Your task to perform on an android device: open a bookmark in the chrome app Image 0: 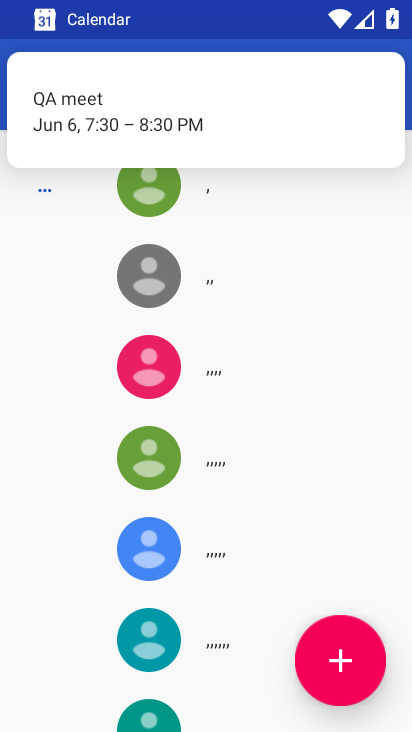
Step 0: press home button
Your task to perform on an android device: open a bookmark in the chrome app Image 1: 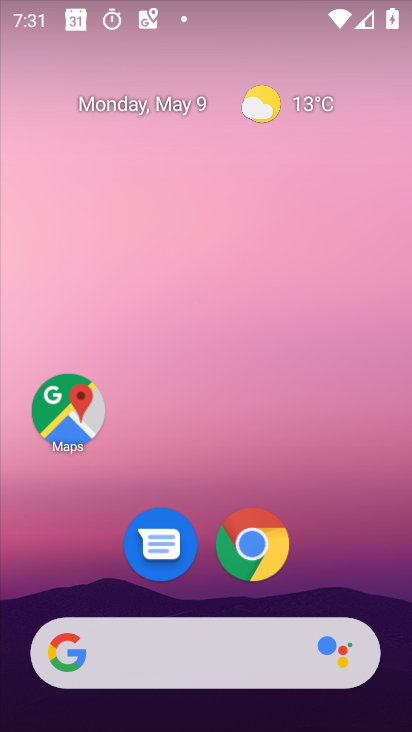
Step 1: drag from (359, 587) to (338, 89)
Your task to perform on an android device: open a bookmark in the chrome app Image 2: 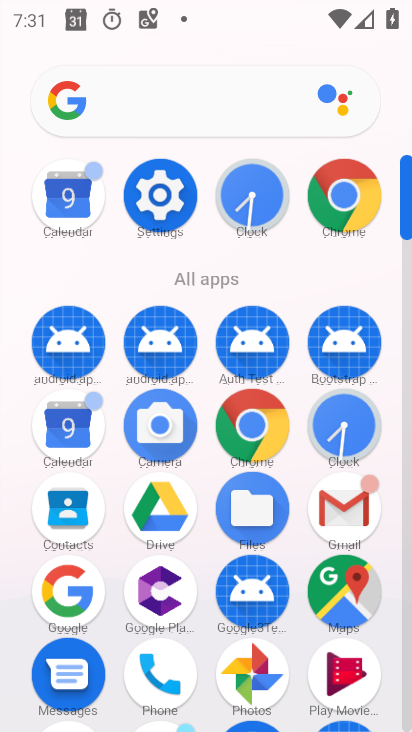
Step 2: click (359, 208)
Your task to perform on an android device: open a bookmark in the chrome app Image 3: 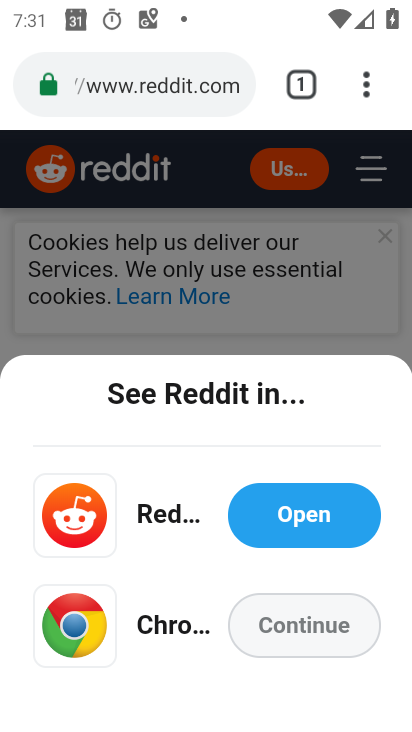
Step 3: task complete